Your task to perform on an android device: toggle pop-ups in chrome Image 0: 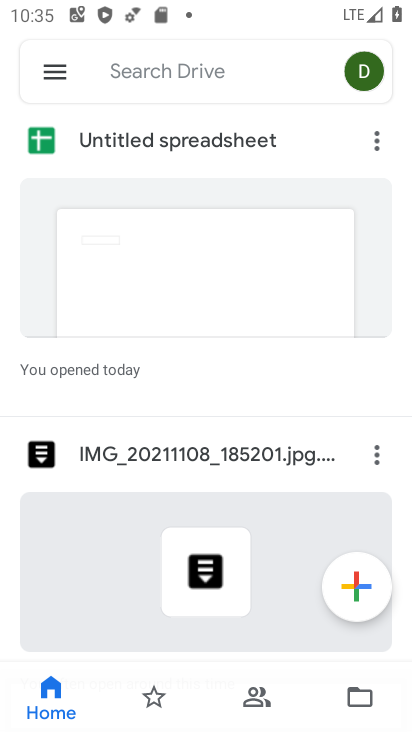
Step 0: press home button
Your task to perform on an android device: toggle pop-ups in chrome Image 1: 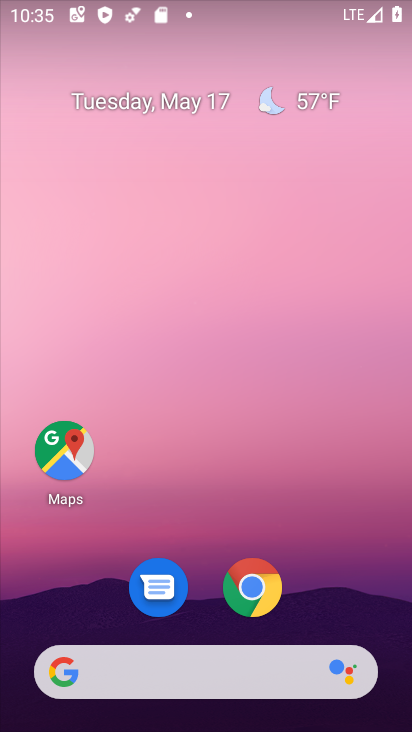
Step 1: drag from (383, 623) to (246, 76)
Your task to perform on an android device: toggle pop-ups in chrome Image 2: 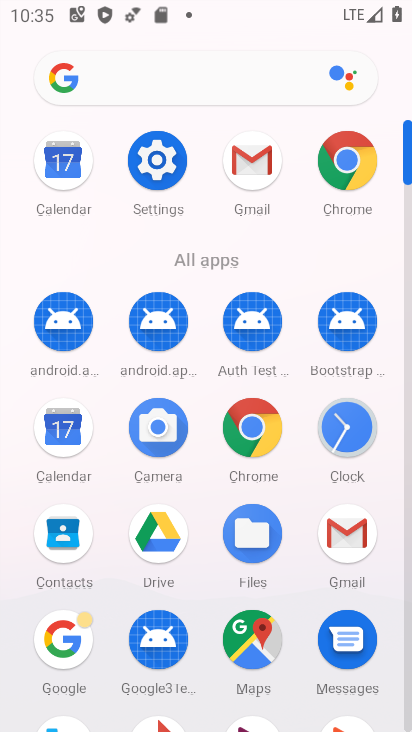
Step 2: click (343, 184)
Your task to perform on an android device: toggle pop-ups in chrome Image 3: 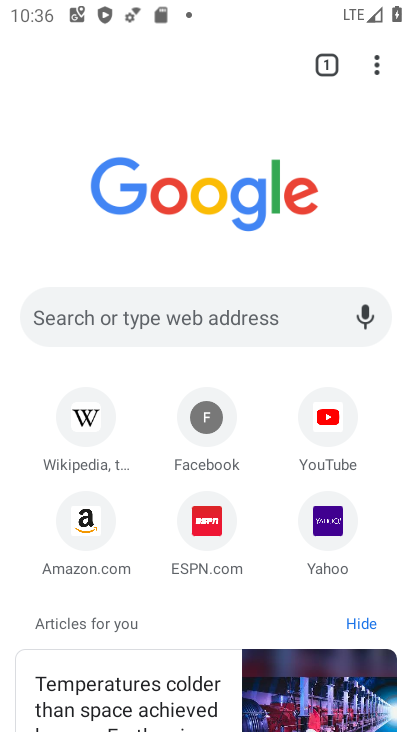
Step 3: click (382, 59)
Your task to perform on an android device: toggle pop-ups in chrome Image 4: 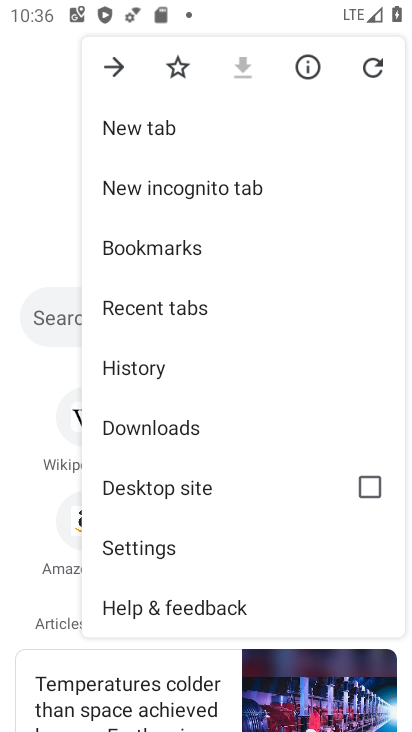
Step 4: click (198, 551)
Your task to perform on an android device: toggle pop-ups in chrome Image 5: 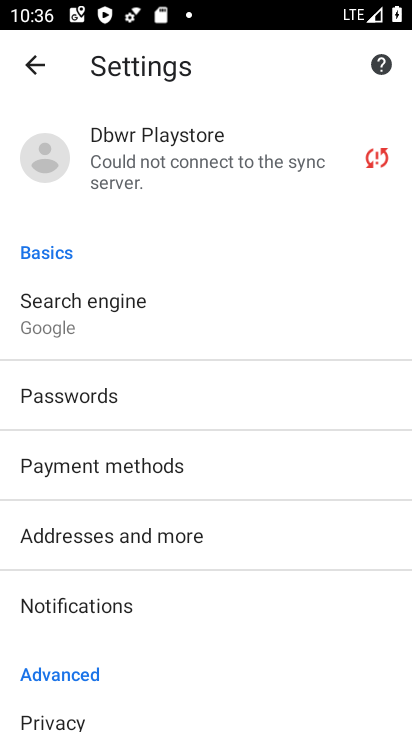
Step 5: drag from (183, 635) to (198, 264)
Your task to perform on an android device: toggle pop-ups in chrome Image 6: 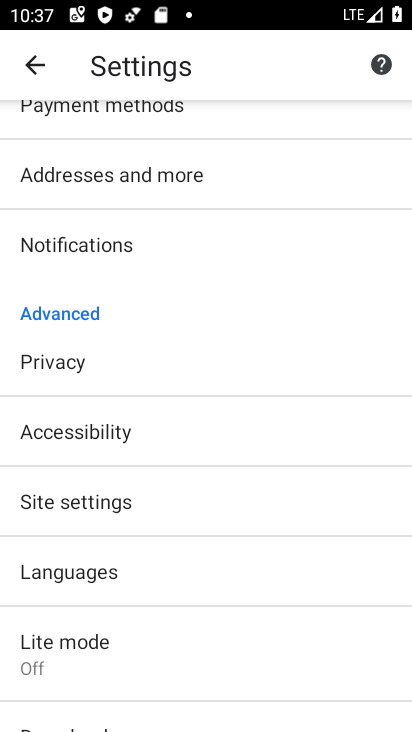
Step 6: click (116, 513)
Your task to perform on an android device: toggle pop-ups in chrome Image 7: 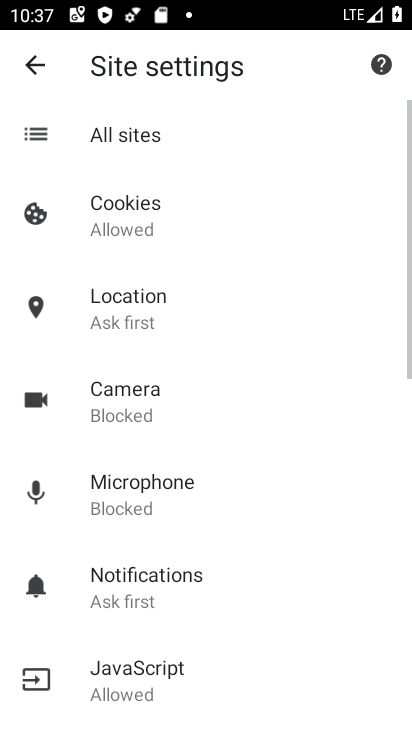
Step 7: drag from (171, 683) to (254, 208)
Your task to perform on an android device: toggle pop-ups in chrome Image 8: 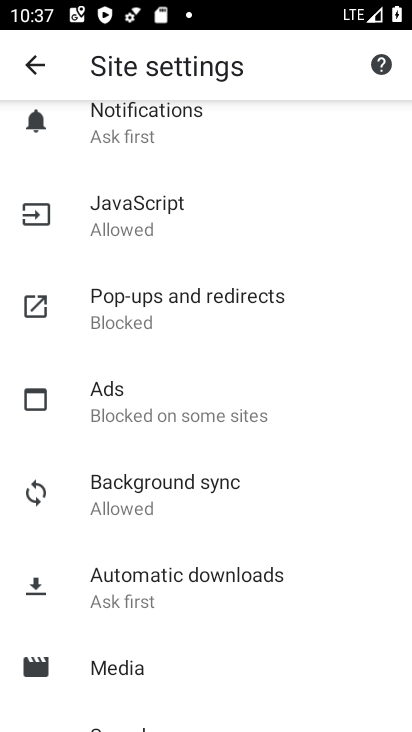
Step 8: click (126, 314)
Your task to perform on an android device: toggle pop-ups in chrome Image 9: 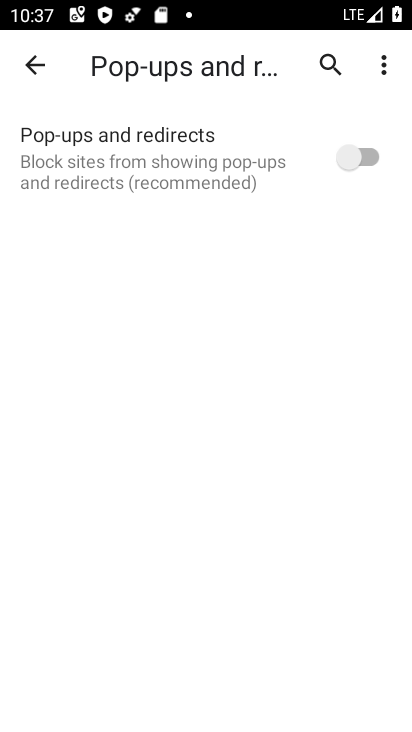
Step 9: click (321, 177)
Your task to perform on an android device: toggle pop-ups in chrome Image 10: 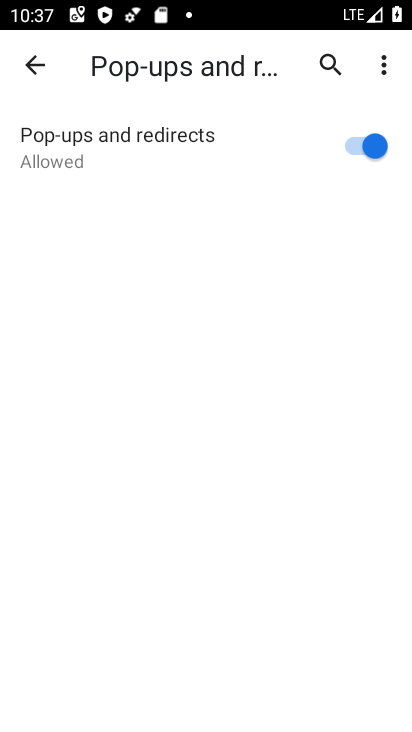
Step 10: task complete